Your task to perform on an android device: uninstall "Google Find My Device" Image 0: 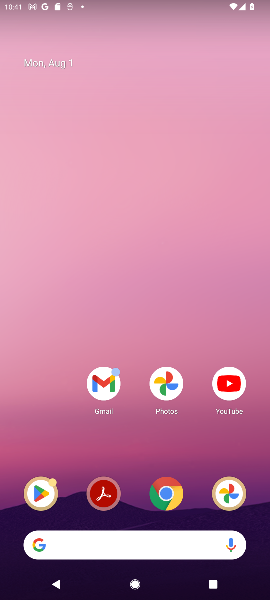
Step 0: click (45, 505)
Your task to perform on an android device: uninstall "Google Find My Device" Image 1: 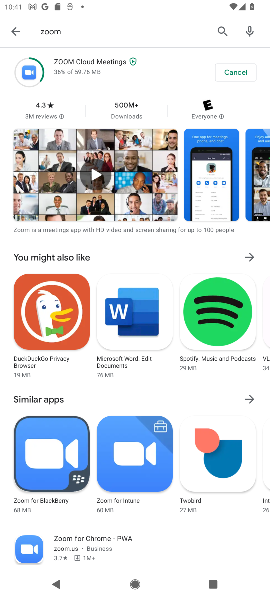
Step 1: click (219, 36)
Your task to perform on an android device: uninstall "Google Find My Device" Image 2: 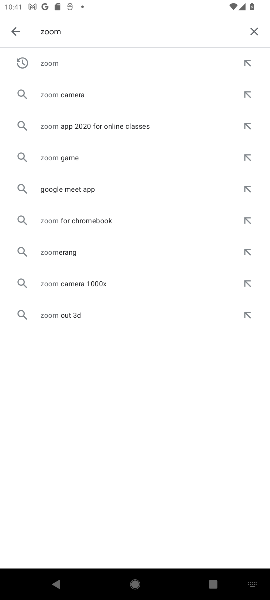
Step 2: click (248, 38)
Your task to perform on an android device: uninstall "Google Find My Device" Image 3: 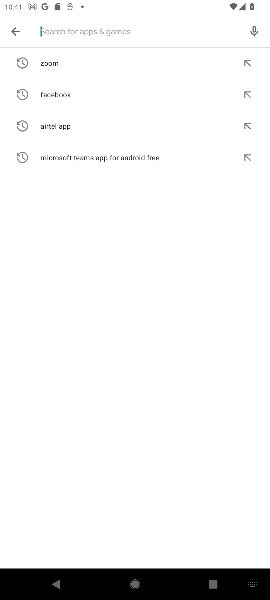
Step 3: type "find my device"
Your task to perform on an android device: uninstall "Google Find My Device" Image 4: 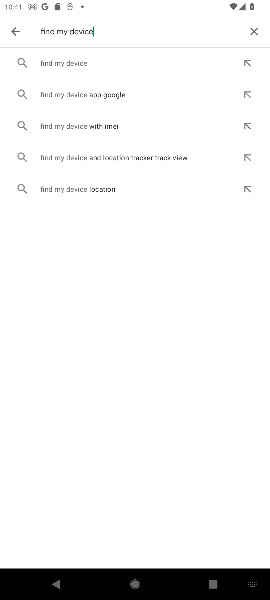
Step 4: click (134, 73)
Your task to perform on an android device: uninstall "Google Find My Device" Image 5: 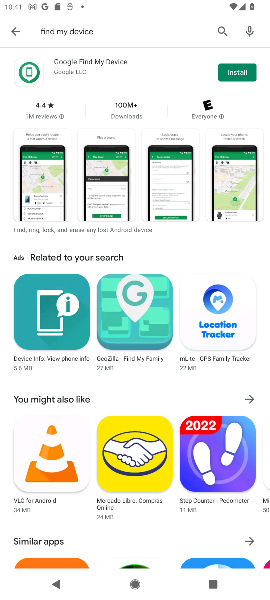
Step 5: click (232, 76)
Your task to perform on an android device: uninstall "Google Find My Device" Image 6: 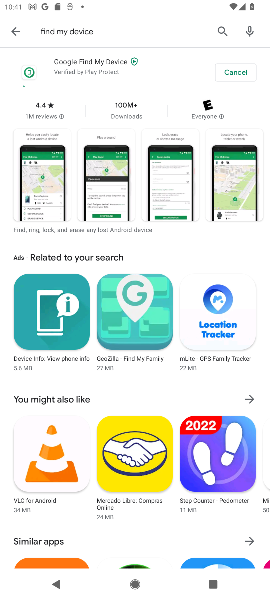
Step 6: task complete